Your task to perform on an android device: Open the web browser Image 0: 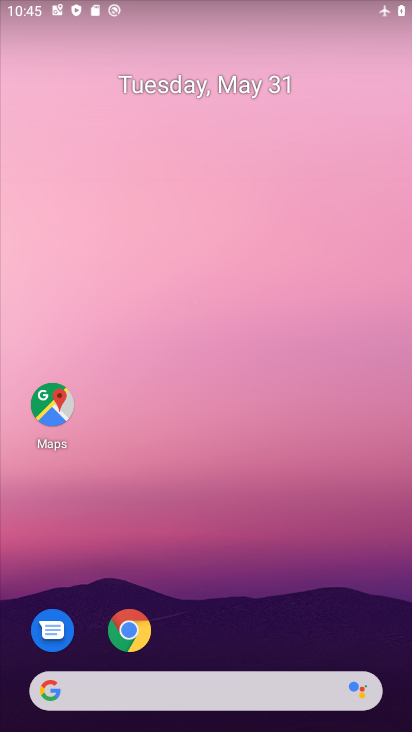
Step 0: drag from (246, 700) to (243, 288)
Your task to perform on an android device: Open the web browser Image 1: 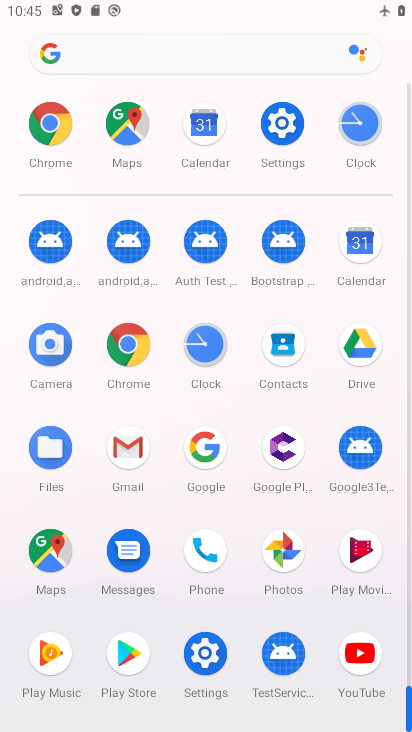
Step 1: drag from (218, 457) to (221, 309)
Your task to perform on an android device: Open the web browser Image 2: 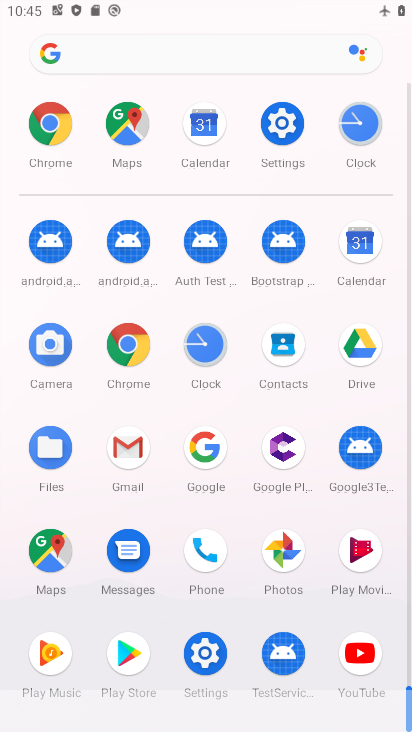
Step 2: click (133, 373)
Your task to perform on an android device: Open the web browser Image 3: 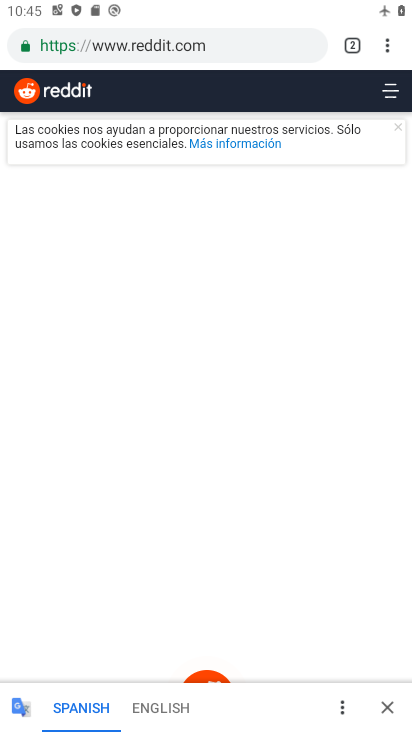
Step 3: task complete